Your task to perform on an android device: Search for vegetarian restaurants on Maps Image 0: 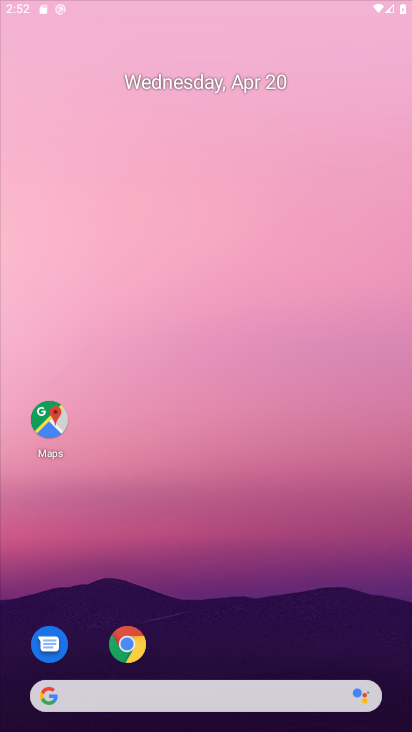
Step 0: drag from (242, 61) to (214, 38)
Your task to perform on an android device: Search for vegetarian restaurants on Maps Image 1: 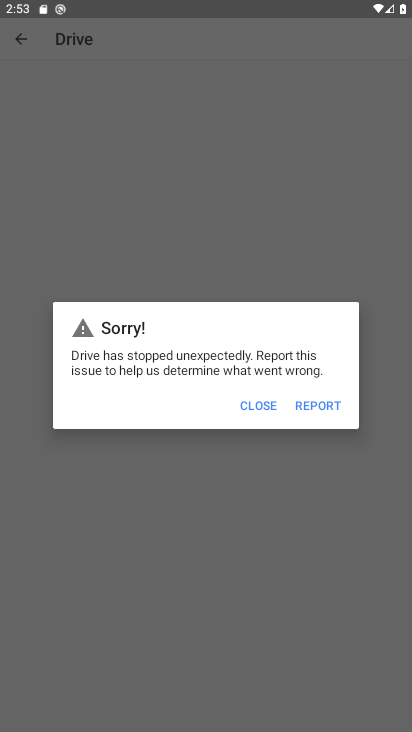
Step 1: press home button
Your task to perform on an android device: Search for vegetarian restaurants on Maps Image 2: 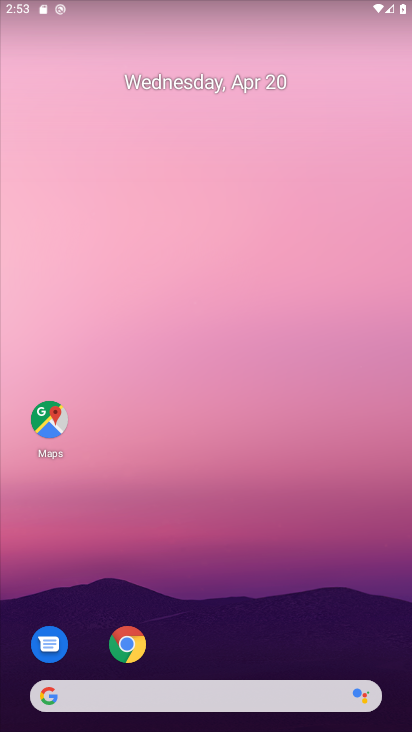
Step 2: click (51, 416)
Your task to perform on an android device: Search for vegetarian restaurants on Maps Image 3: 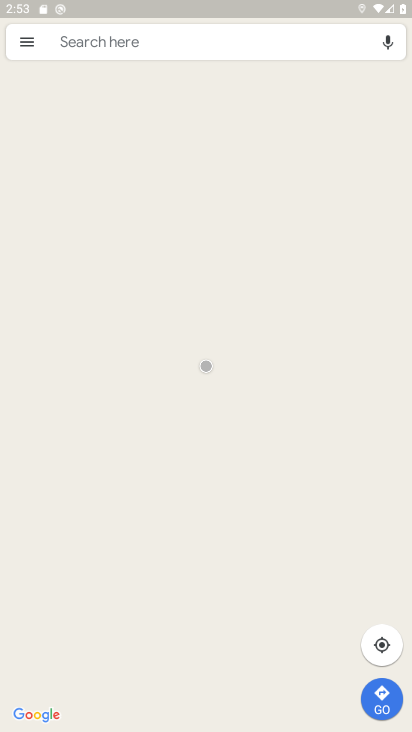
Step 3: click (110, 45)
Your task to perform on an android device: Search for vegetarian restaurants on Maps Image 4: 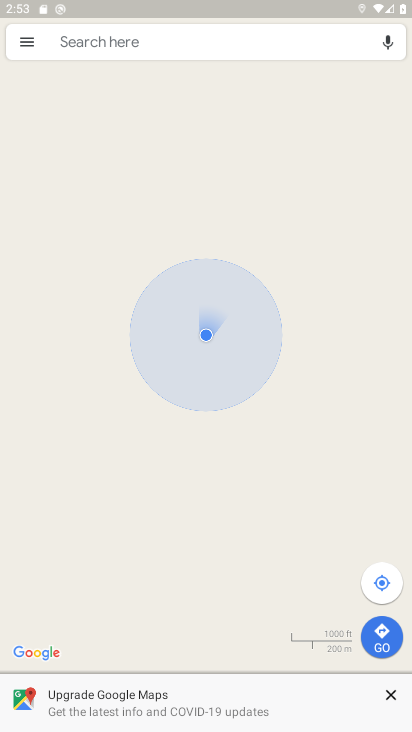
Step 4: type " vegetarian restaurants"
Your task to perform on an android device: Search for vegetarian restaurants on Maps Image 5: 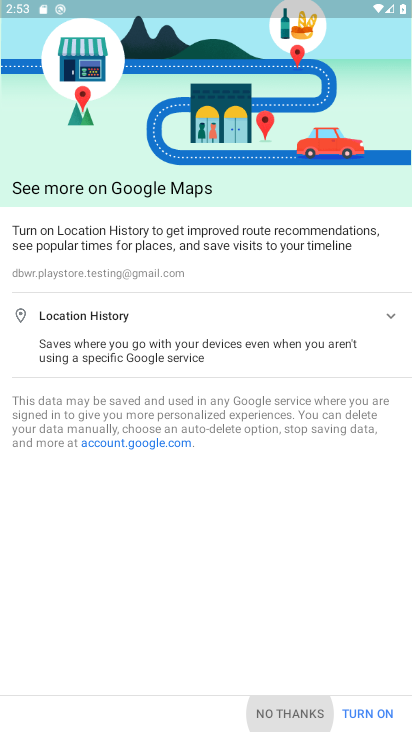
Step 5: click (362, 720)
Your task to perform on an android device: Search for vegetarian restaurants on Maps Image 6: 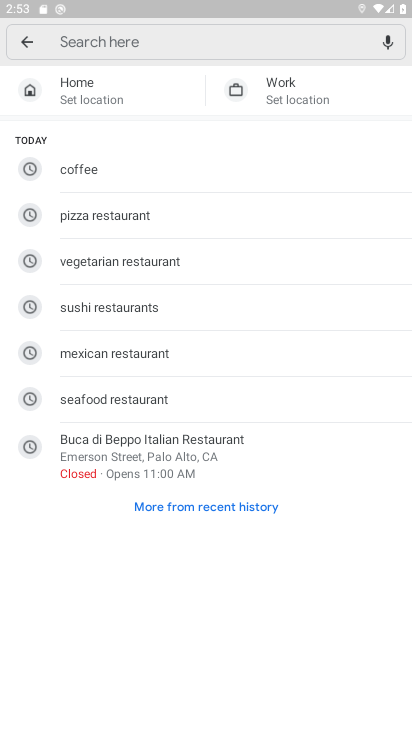
Step 6: click (146, 265)
Your task to perform on an android device: Search for vegetarian restaurants on Maps Image 7: 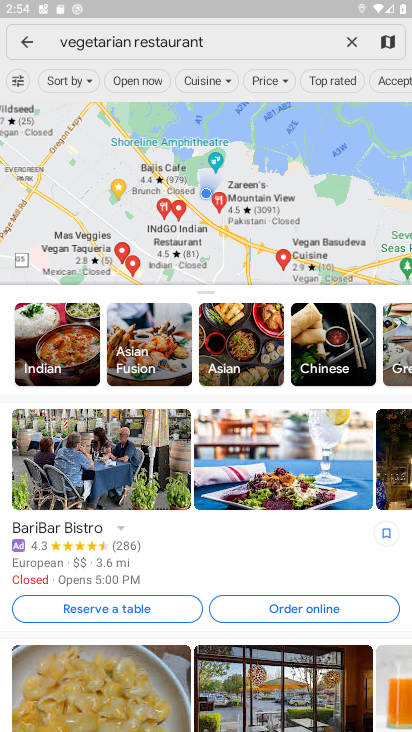
Step 7: task complete